Your task to perform on an android device: Go to internet settings Image 0: 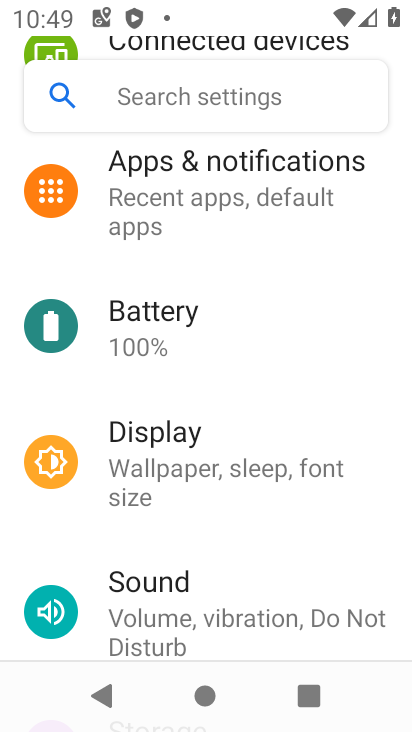
Step 0: drag from (303, 218) to (293, 495)
Your task to perform on an android device: Go to internet settings Image 1: 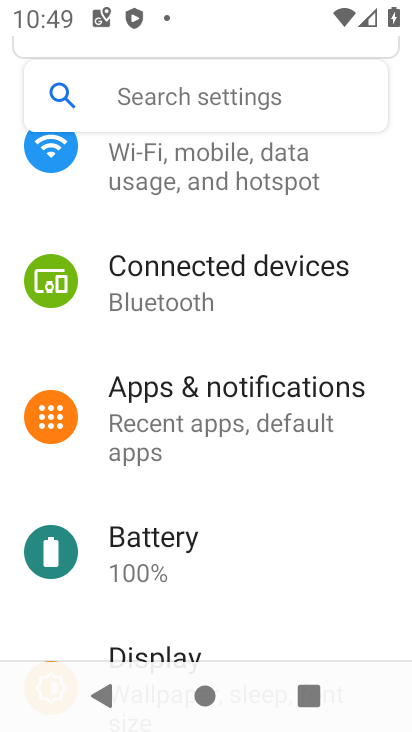
Step 1: drag from (361, 186) to (355, 619)
Your task to perform on an android device: Go to internet settings Image 2: 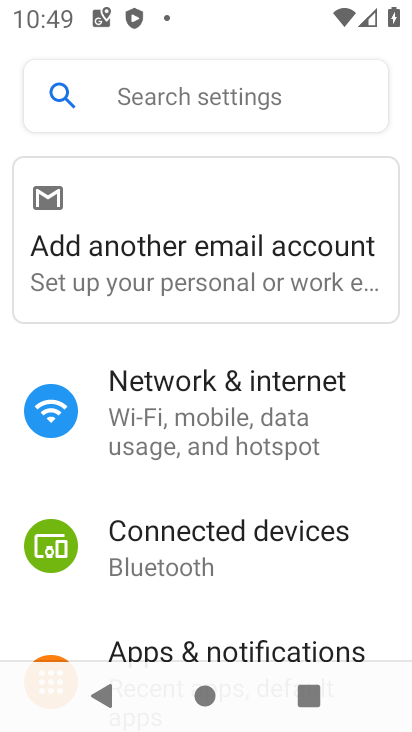
Step 2: click (216, 408)
Your task to perform on an android device: Go to internet settings Image 3: 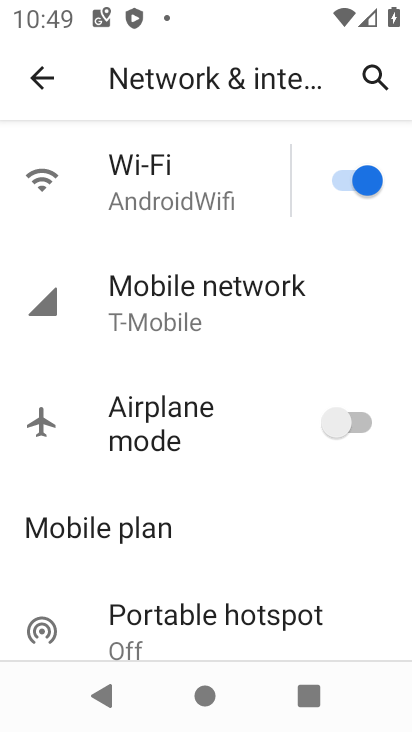
Step 3: task complete